Your task to perform on an android device: Add "macbook pro 15 inch" to the cart on walmart.com, then select checkout. Image 0: 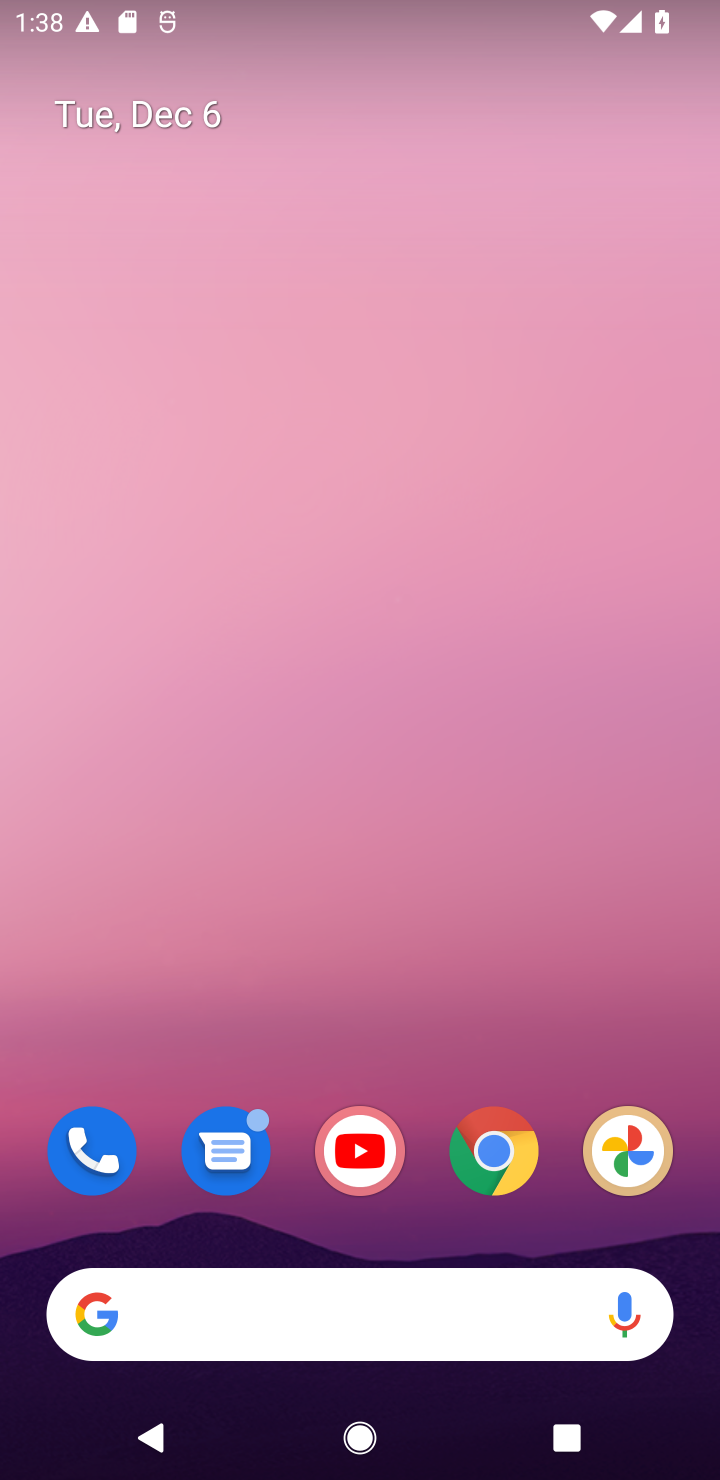
Step 0: click (487, 1162)
Your task to perform on an android device: Add "macbook pro 15 inch" to the cart on walmart.com, then select checkout. Image 1: 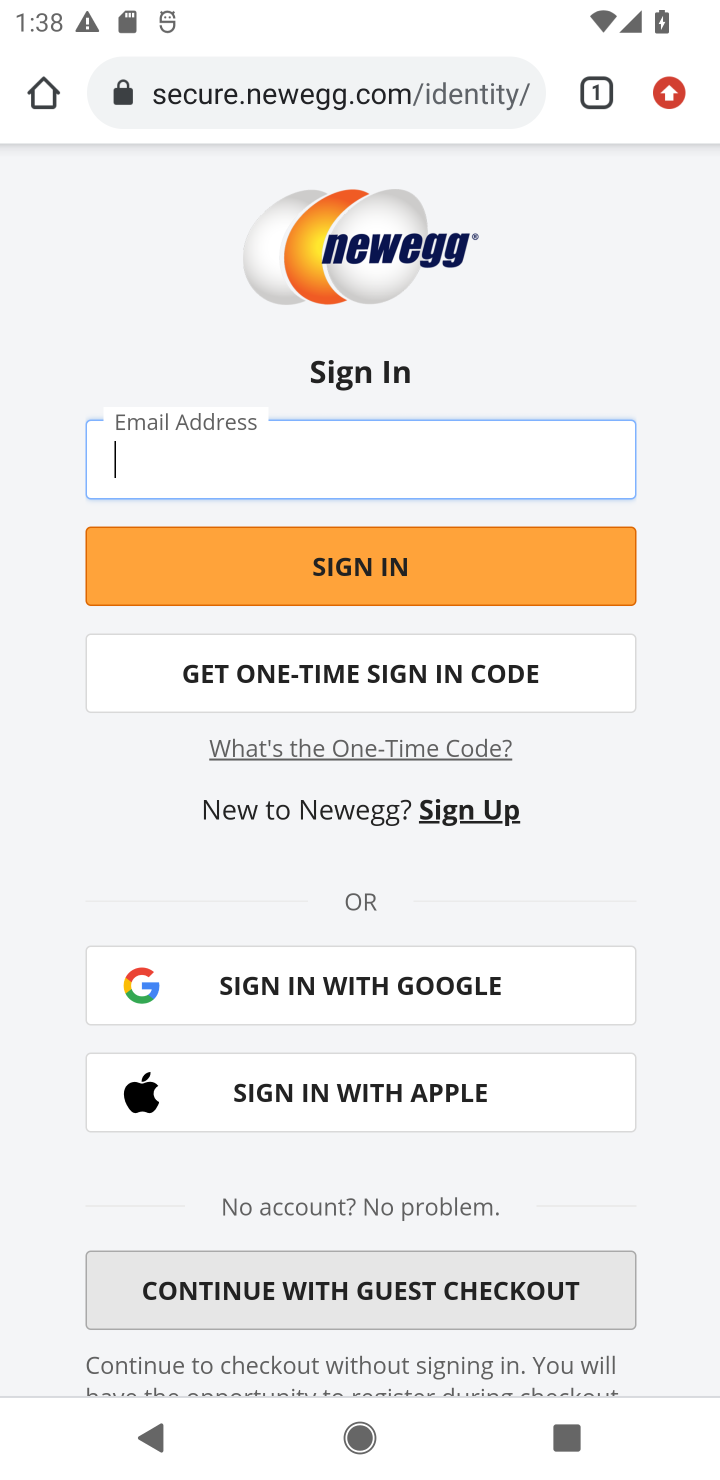
Step 1: click (244, 91)
Your task to perform on an android device: Add "macbook pro 15 inch" to the cart on walmart.com, then select checkout. Image 2: 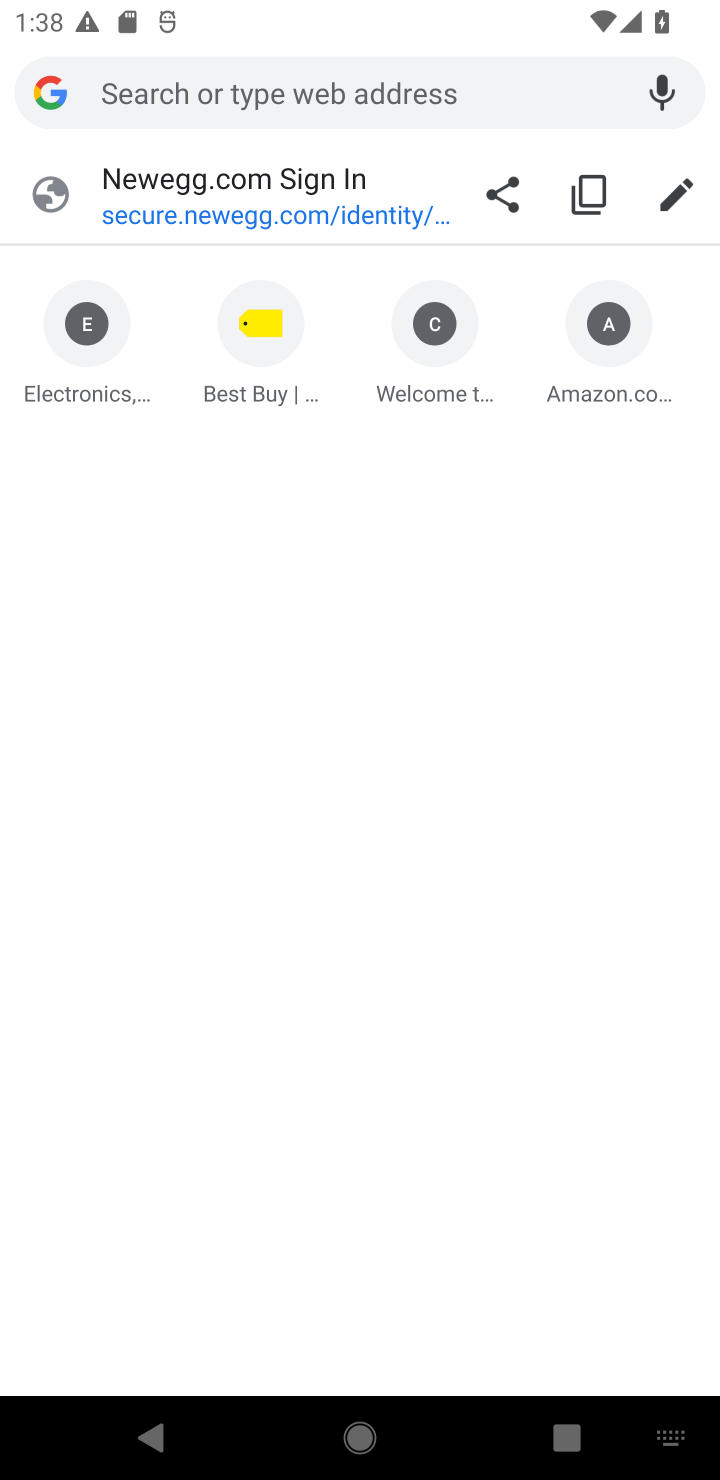
Step 2: type "walmart.com"
Your task to perform on an android device: Add "macbook pro 15 inch" to the cart on walmart.com, then select checkout. Image 3: 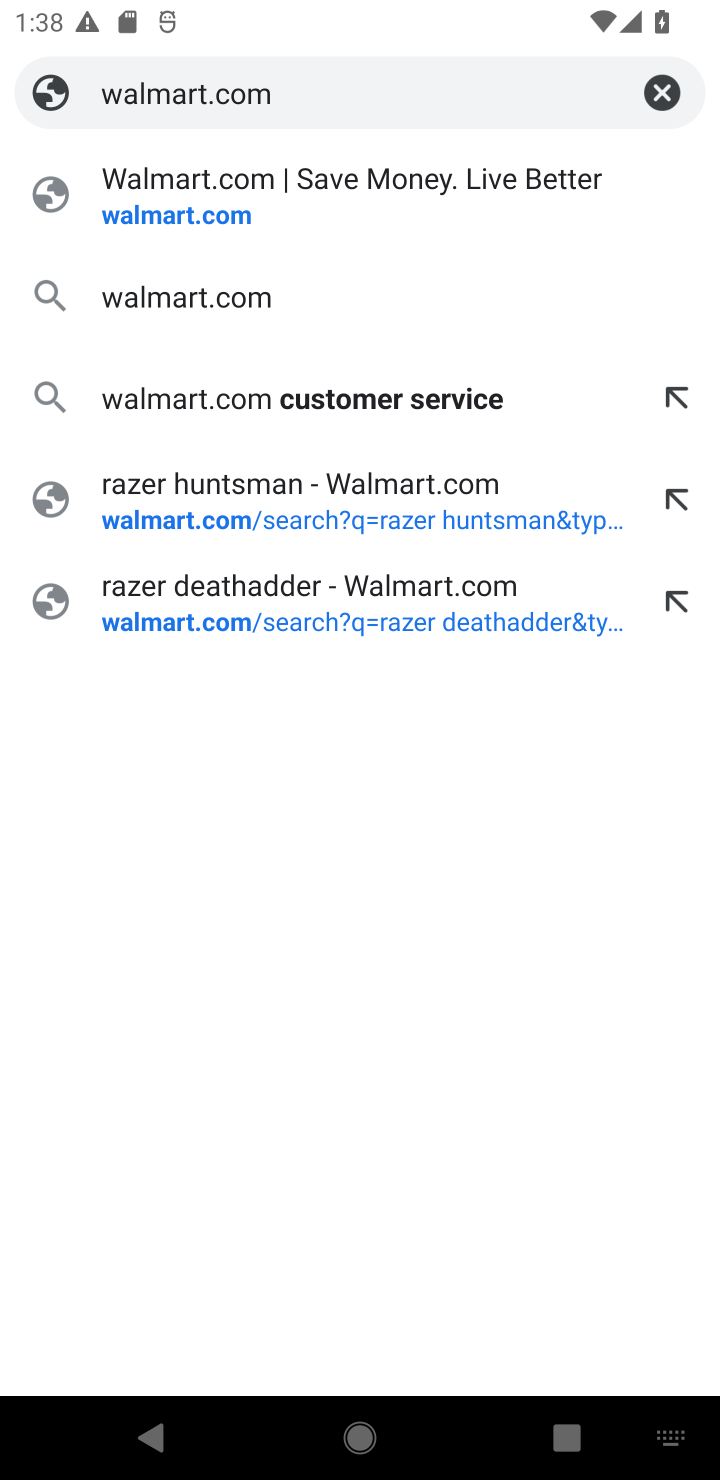
Step 3: click (197, 216)
Your task to perform on an android device: Add "macbook pro 15 inch" to the cart on walmart.com, then select checkout. Image 4: 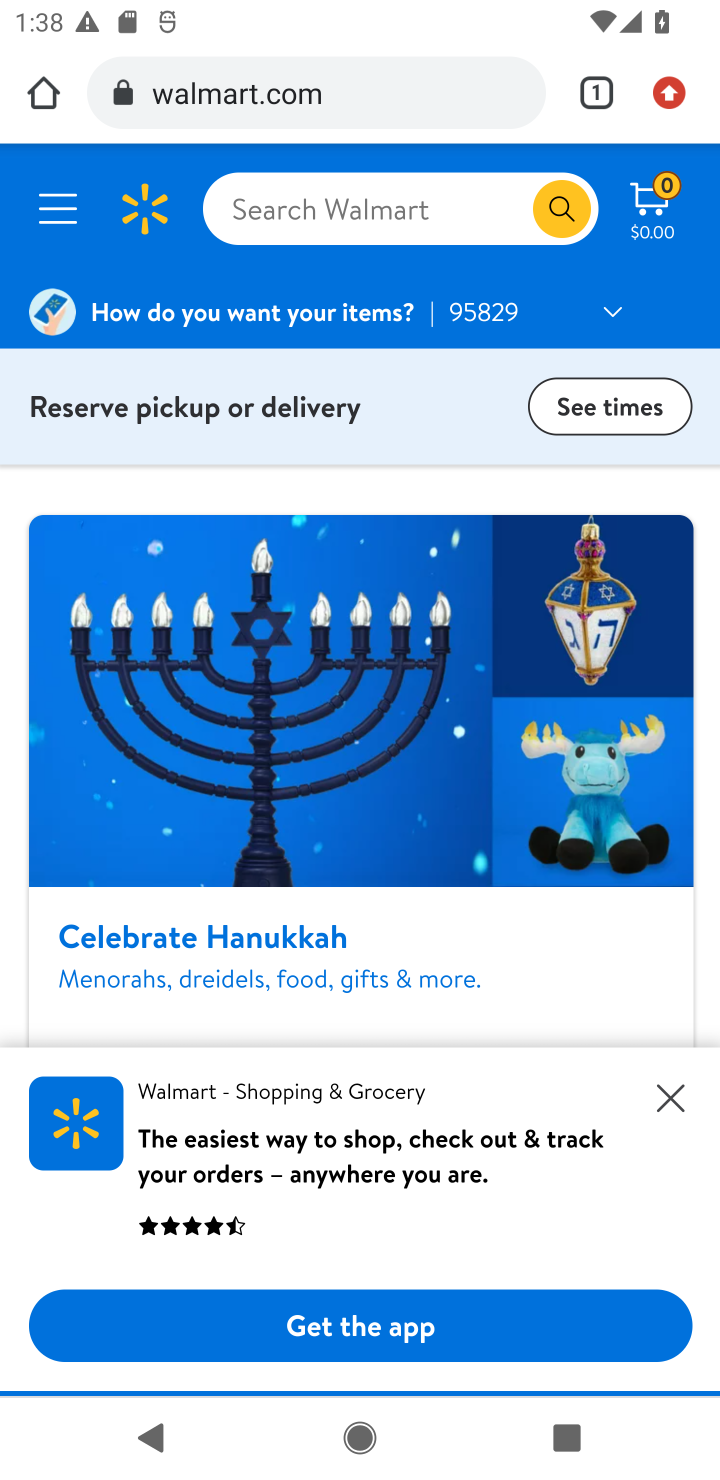
Step 4: click (275, 228)
Your task to perform on an android device: Add "macbook pro 15 inch" to the cart on walmart.com, then select checkout. Image 5: 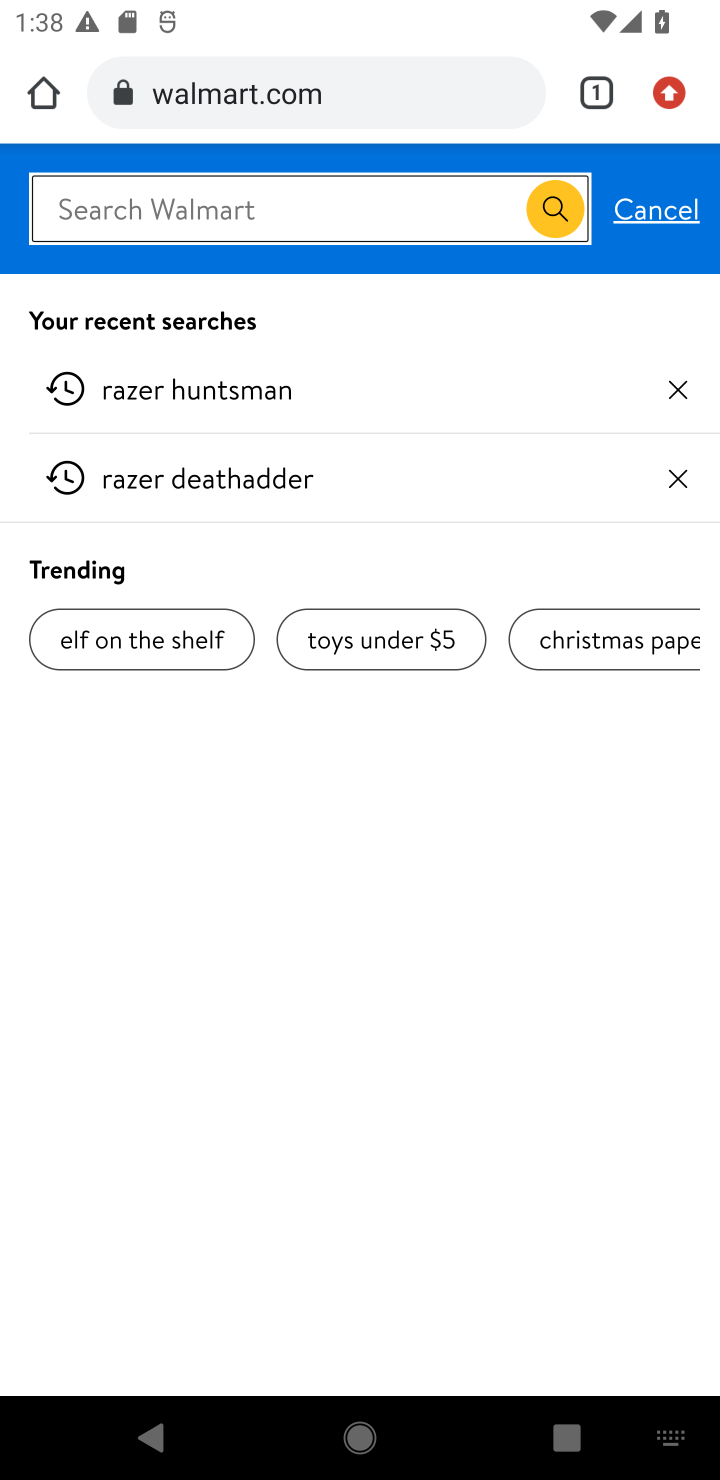
Step 5: type "macbook pro 15 inch"
Your task to perform on an android device: Add "macbook pro 15 inch" to the cart on walmart.com, then select checkout. Image 6: 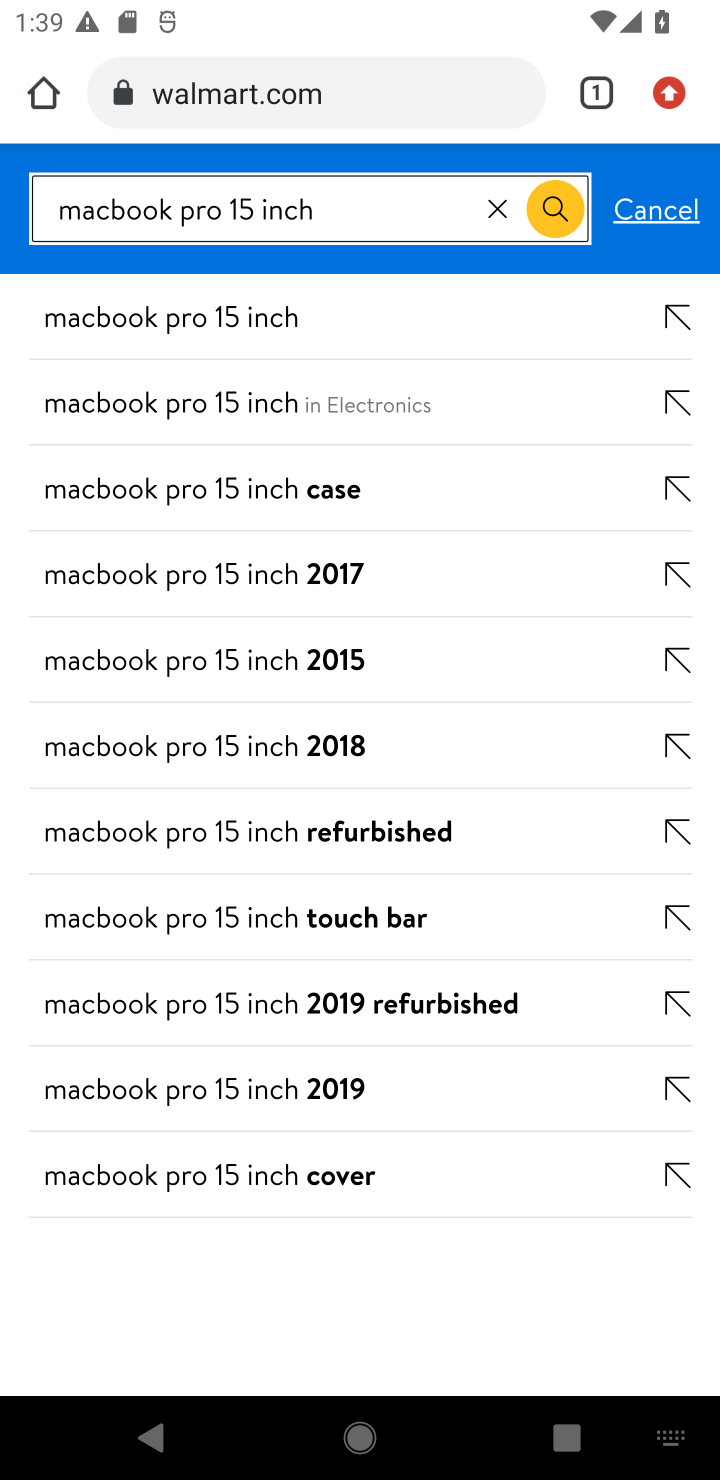
Step 6: click (215, 325)
Your task to perform on an android device: Add "macbook pro 15 inch" to the cart on walmart.com, then select checkout. Image 7: 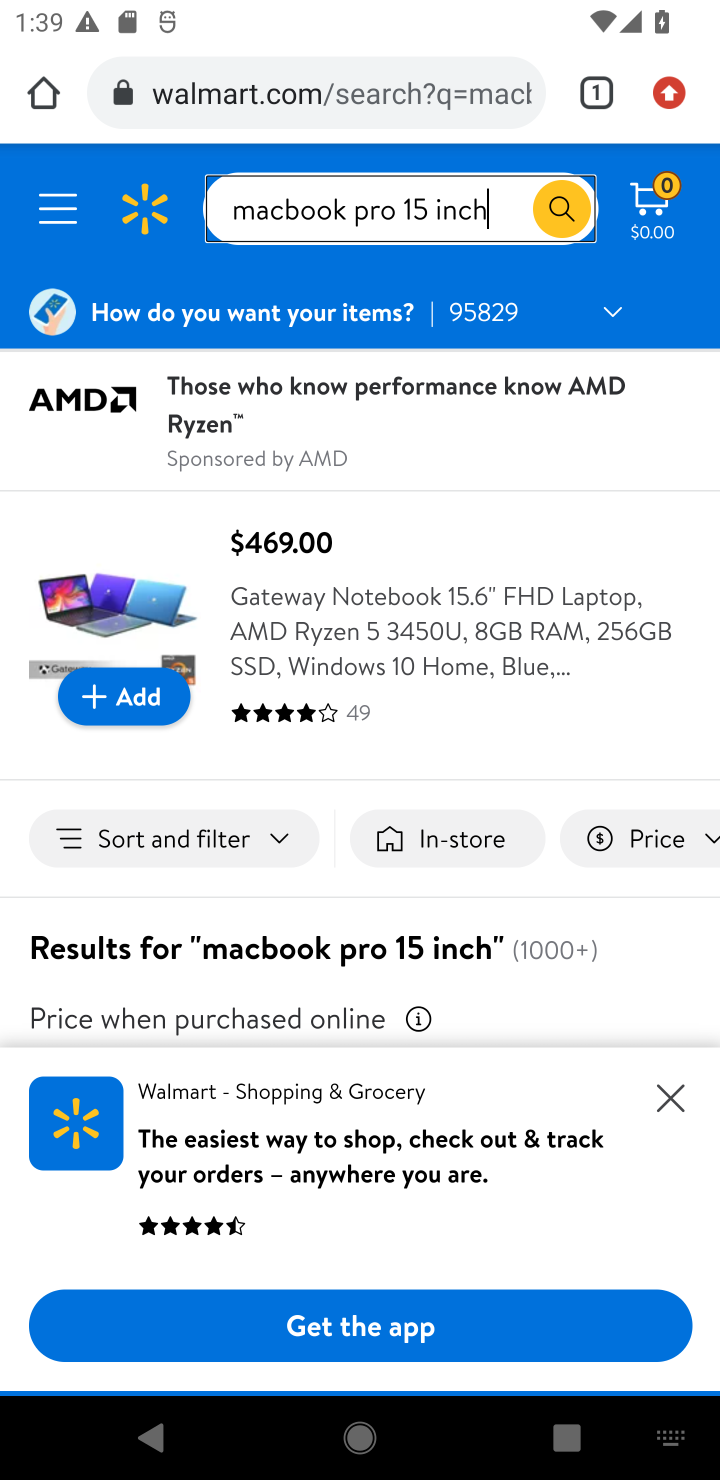
Step 7: click (681, 1090)
Your task to perform on an android device: Add "macbook pro 15 inch" to the cart on walmart.com, then select checkout. Image 8: 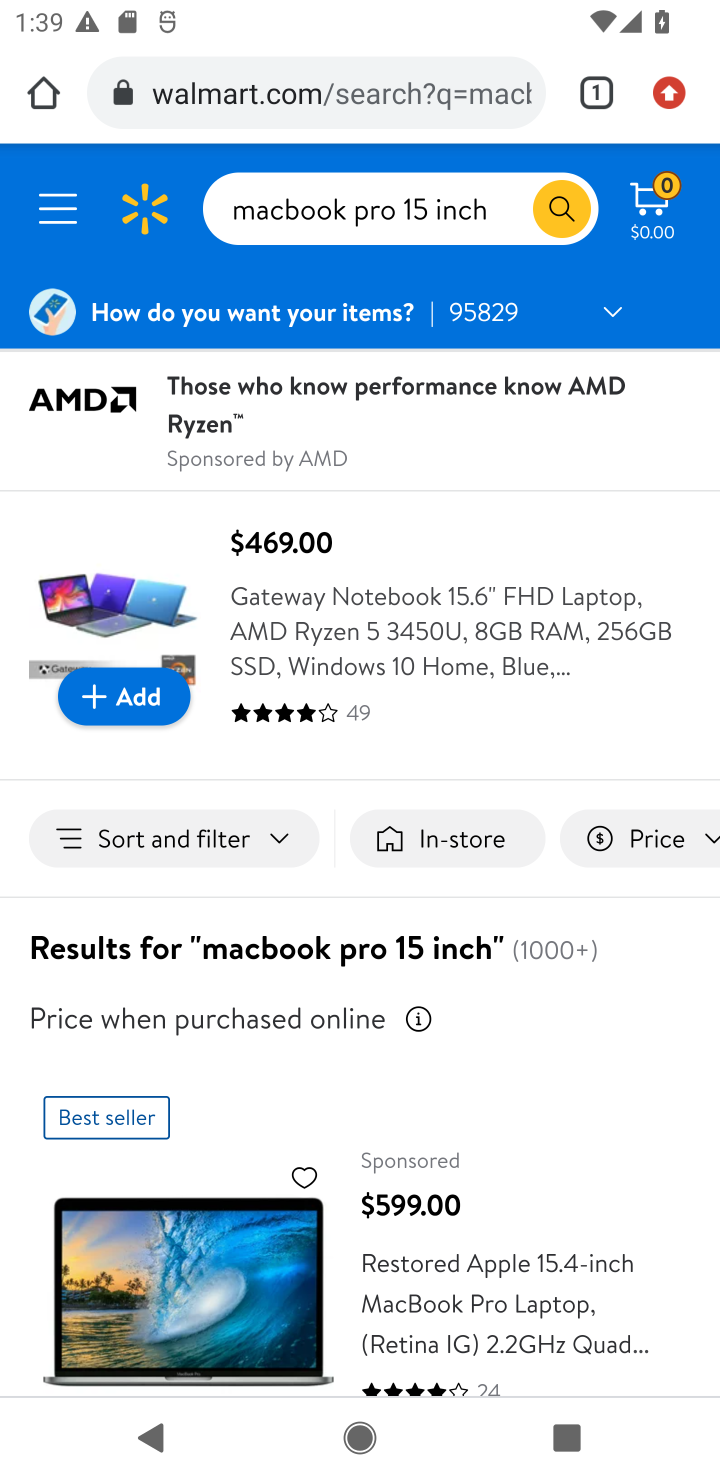
Step 8: drag from (213, 874) to (224, 394)
Your task to perform on an android device: Add "macbook pro 15 inch" to the cart on walmart.com, then select checkout. Image 9: 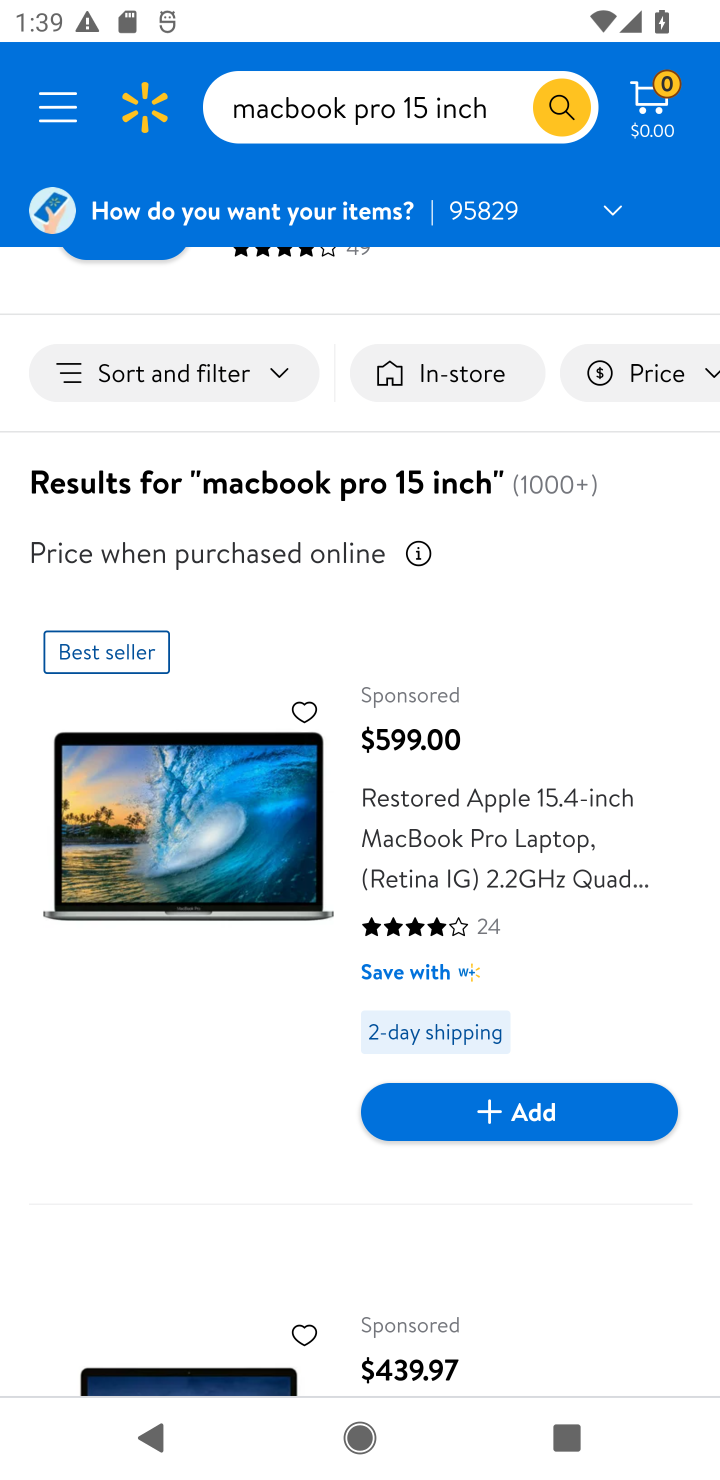
Step 9: click (550, 1112)
Your task to perform on an android device: Add "macbook pro 15 inch" to the cart on walmart.com, then select checkout. Image 10: 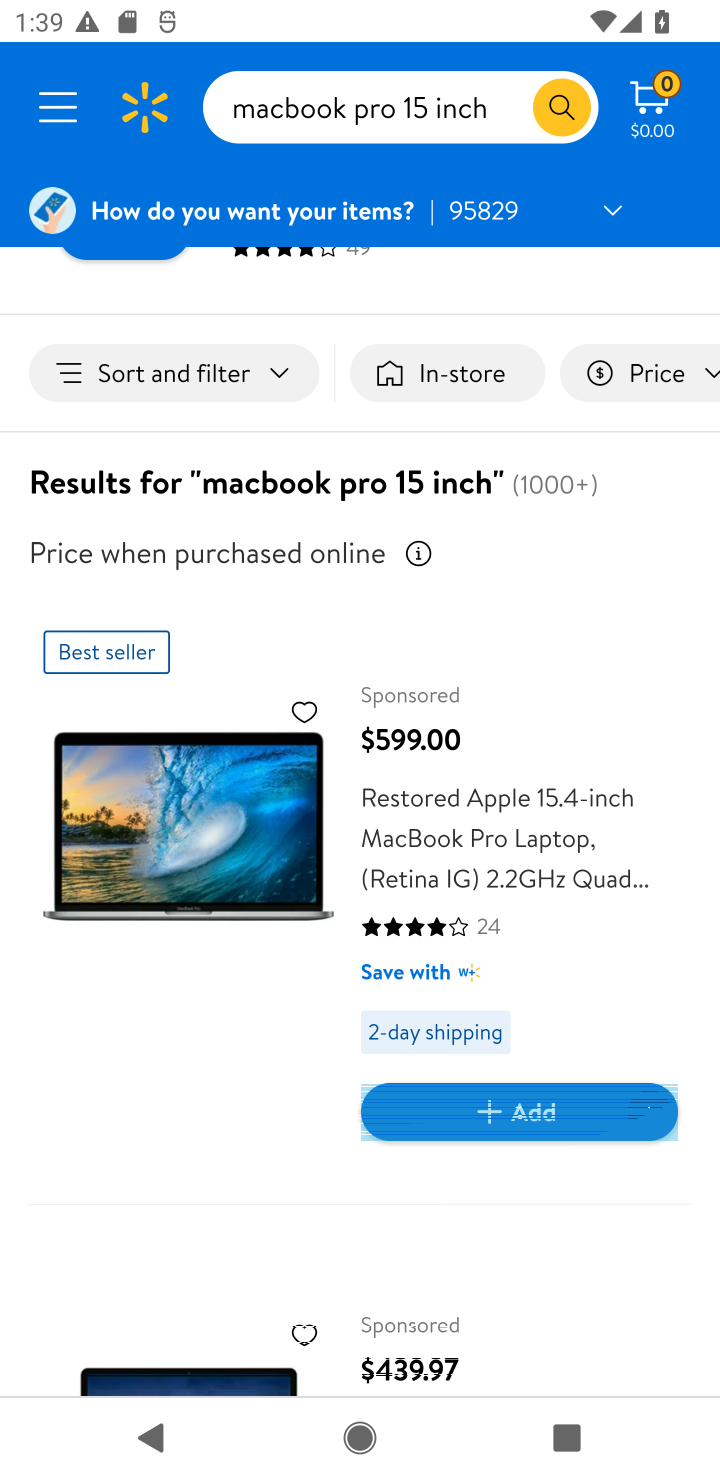
Step 10: click (507, 1112)
Your task to perform on an android device: Add "macbook pro 15 inch" to the cart on walmart.com, then select checkout. Image 11: 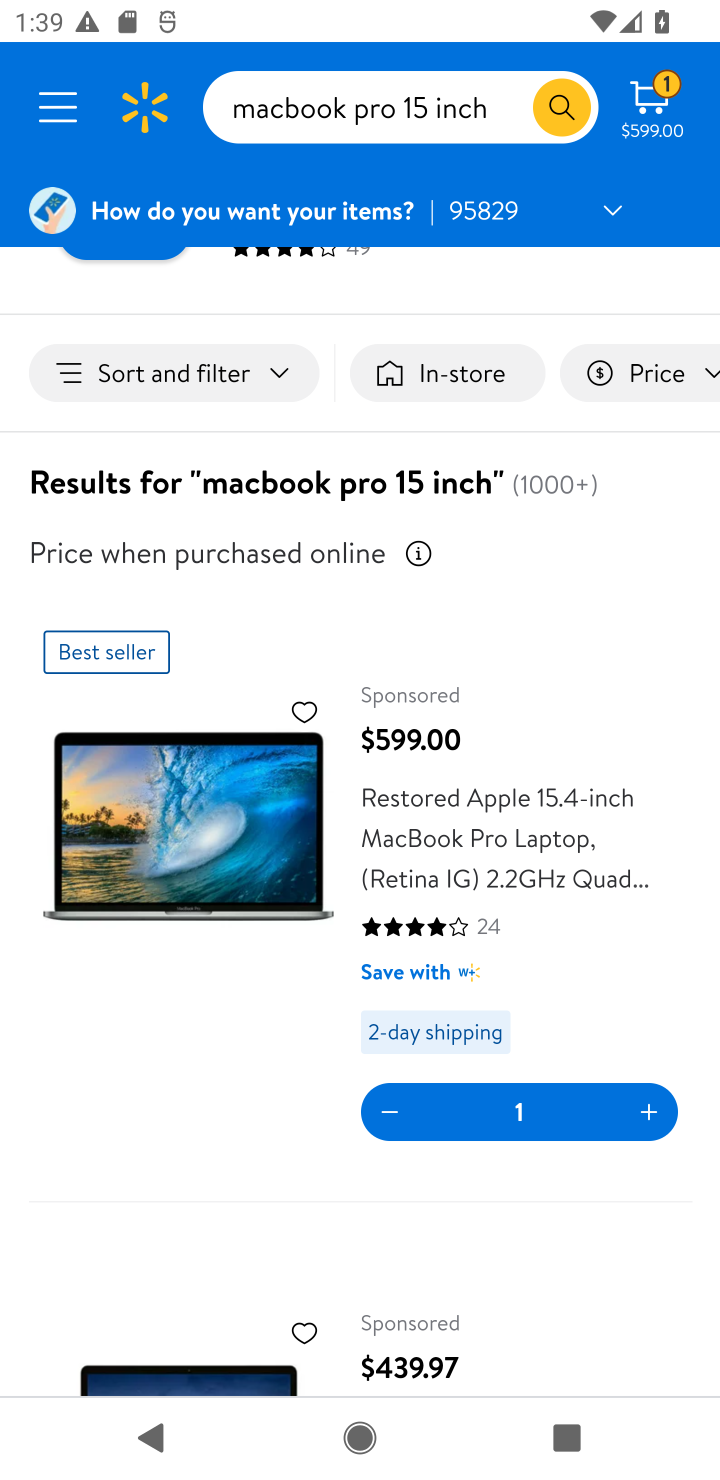
Step 11: click (652, 111)
Your task to perform on an android device: Add "macbook pro 15 inch" to the cart on walmart.com, then select checkout. Image 12: 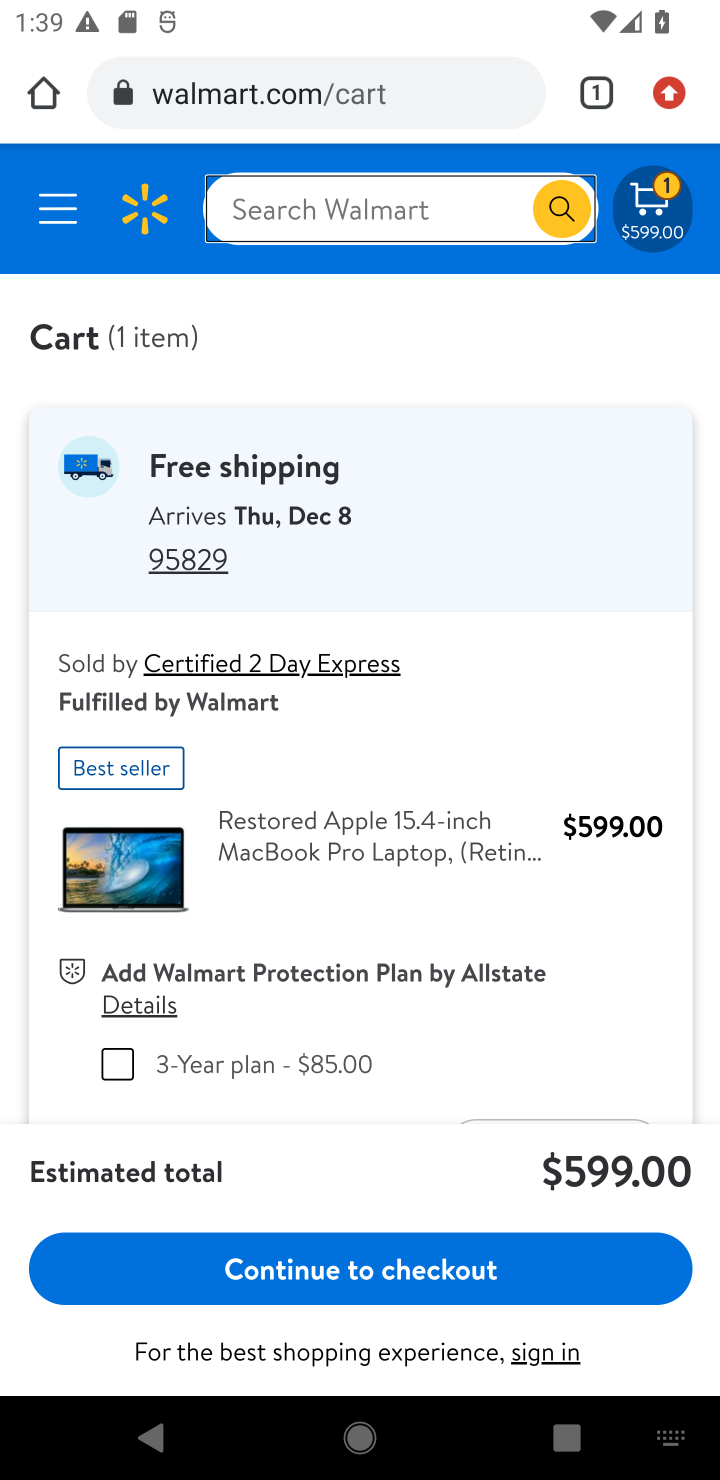
Step 12: click (343, 1278)
Your task to perform on an android device: Add "macbook pro 15 inch" to the cart on walmart.com, then select checkout. Image 13: 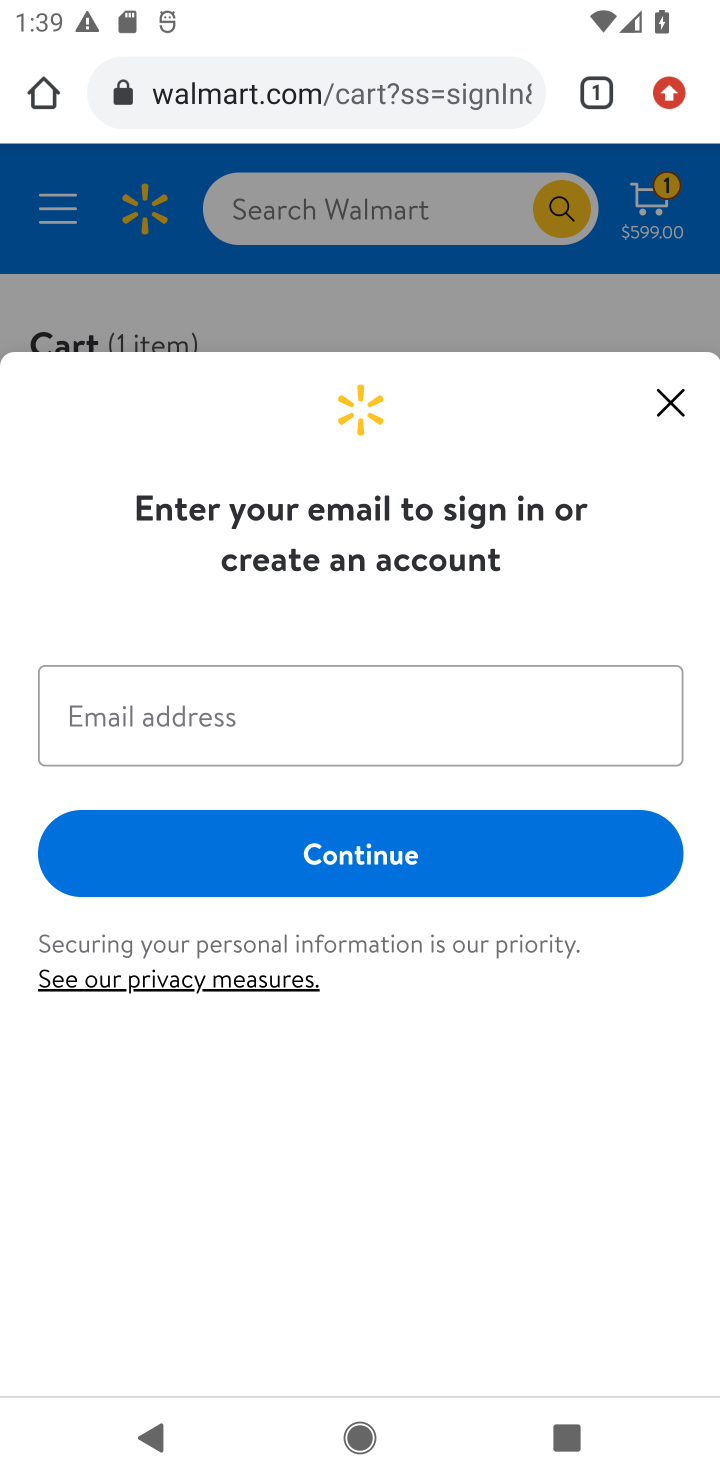
Step 13: task complete